Your task to perform on an android device: clear all cookies in the chrome app Image 0: 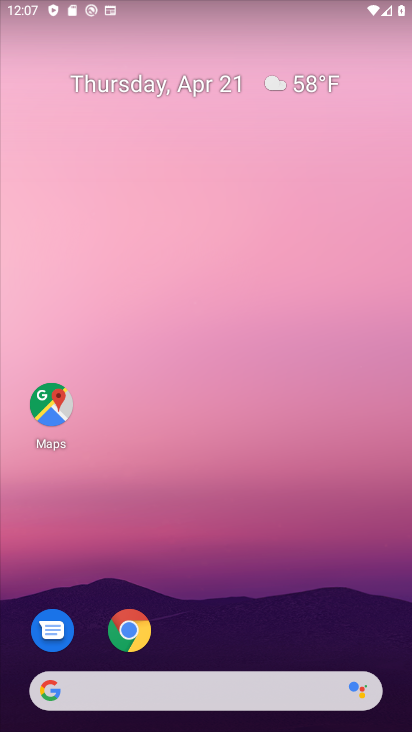
Step 0: drag from (158, 683) to (291, 169)
Your task to perform on an android device: clear all cookies in the chrome app Image 1: 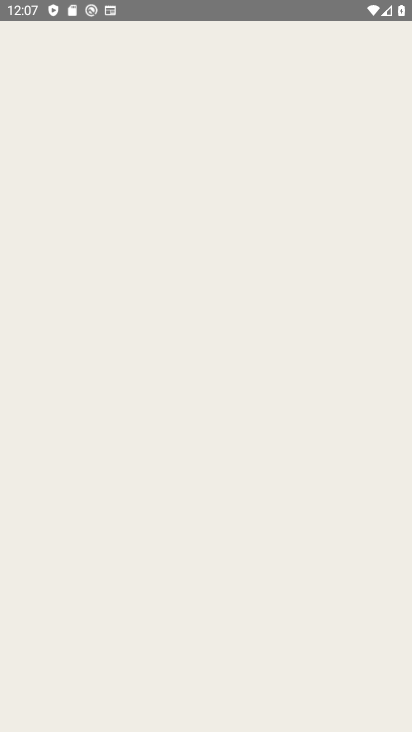
Step 1: press home button
Your task to perform on an android device: clear all cookies in the chrome app Image 2: 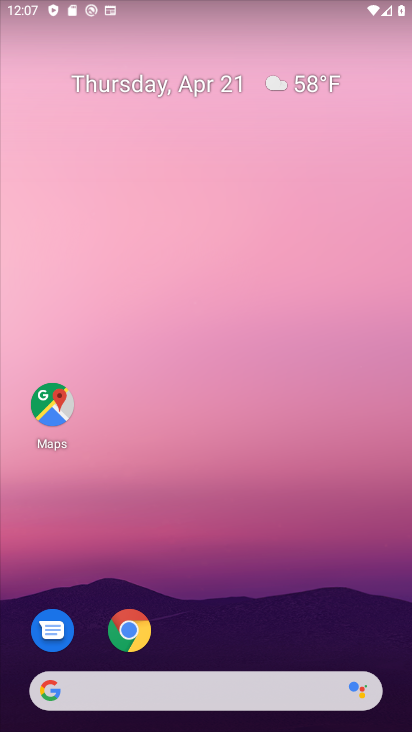
Step 2: drag from (170, 597) to (325, 90)
Your task to perform on an android device: clear all cookies in the chrome app Image 3: 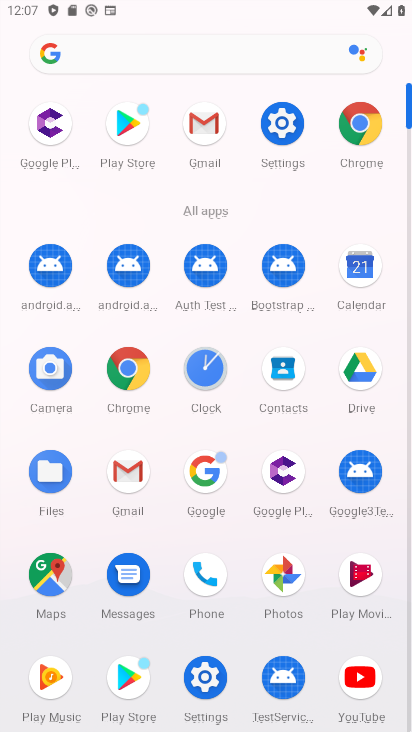
Step 3: click (367, 135)
Your task to perform on an android device: clear all cookies in the chrome app Image 4: 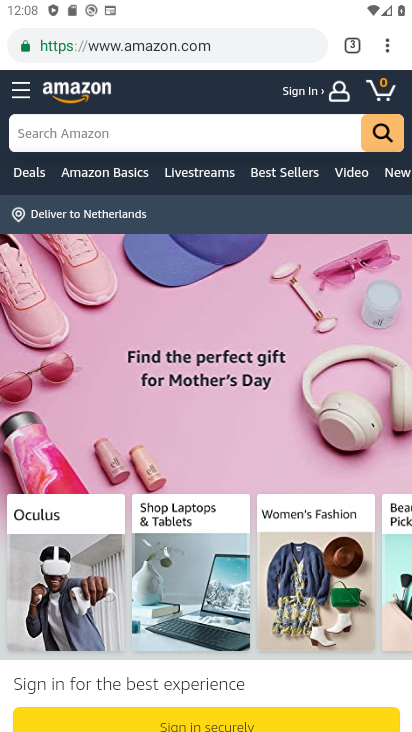
Step 4: click (383, 47)
Your task to perform on an android device: clear all cookies in the chrome app Image 5: 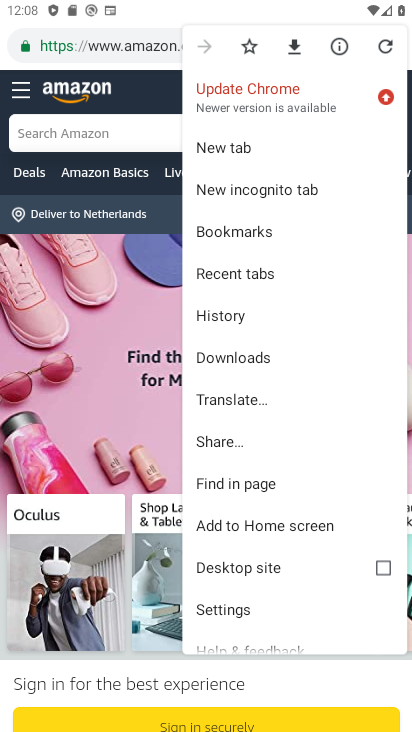
Step 5: click (230, 610)
Your task to perform on an android device: clear all cookies in the chrome app Image 6: 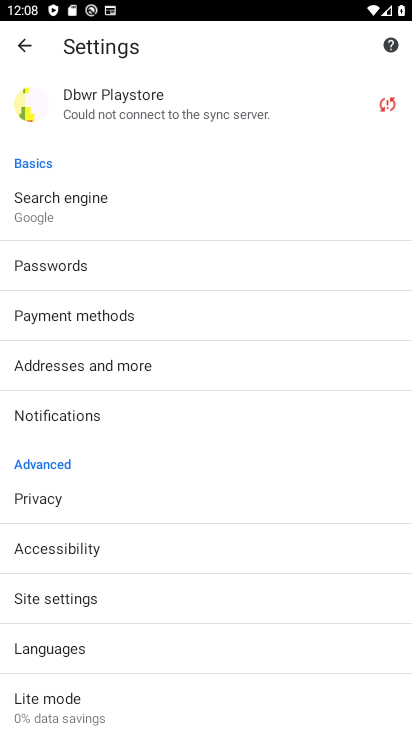
Step 6: click (44, 496)
Your task to perform on an android device: clear all cookies in the chrome app Image 7: 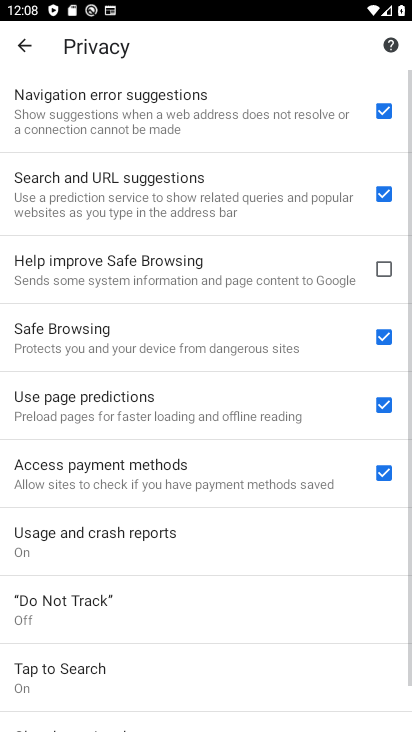
Step 7: drag from (153, 581) to (259, 198)
Your task to perform on an android device: clear all cookies in the chrome app Image 8: 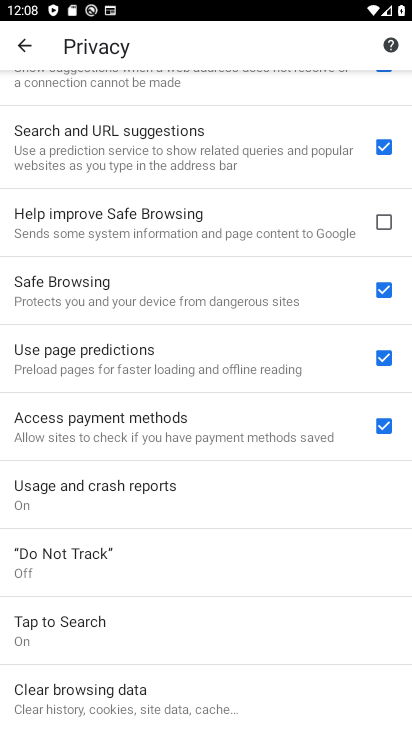
Step 8: click (129, 702)
Your task to perform on an android device: clear all cookies in the chrome app Image 9: 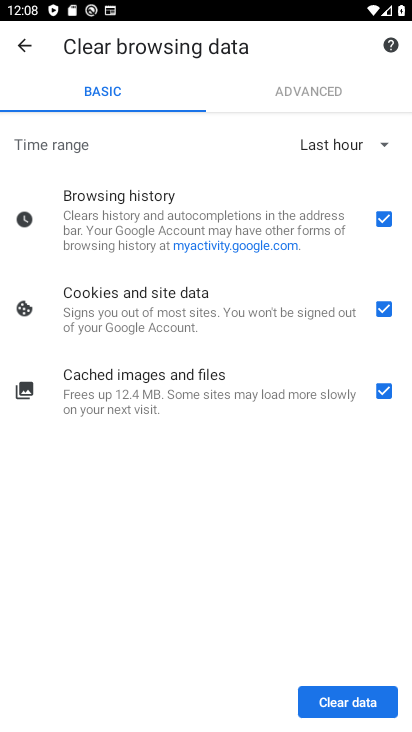
Step 9: click (383, 216)
Your task to perform on an android device: clear all cookies in the chrome app Image 10: 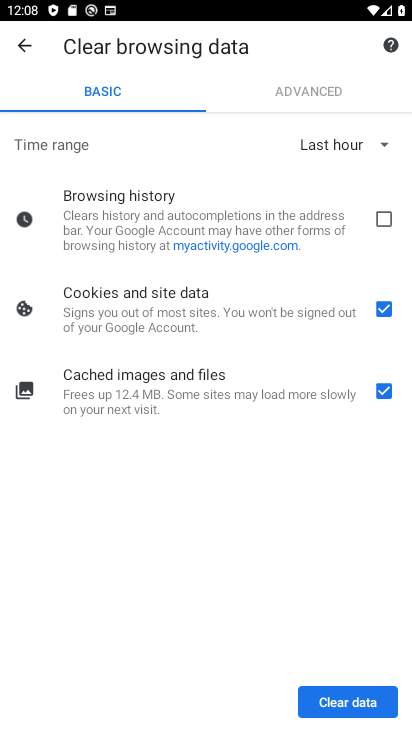
Step 10: click (381, 393)
Your task to perform on an android device: clear all cookies in the chrome app Image 11: 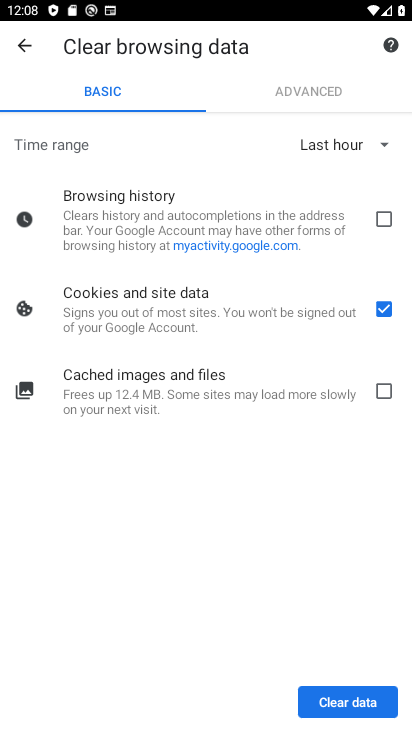
Step 11: click (346, 696)
Your task to perform on an android device: clear all cookies in the chrome app Image 12: 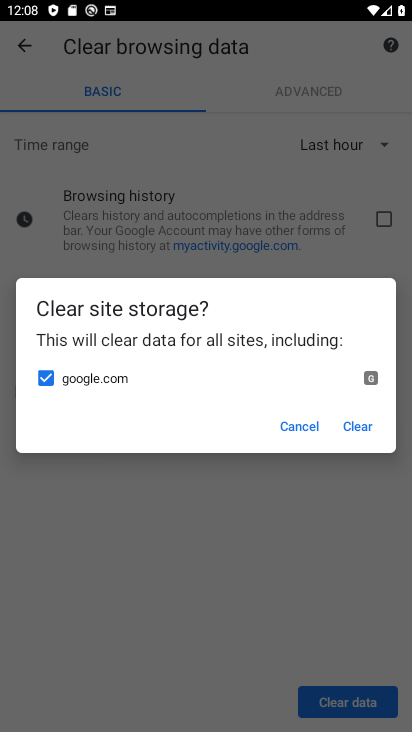
Step 12: click (362, 427)
Your task to perform on an android device: clear all cookies in the chrome app Image 13: 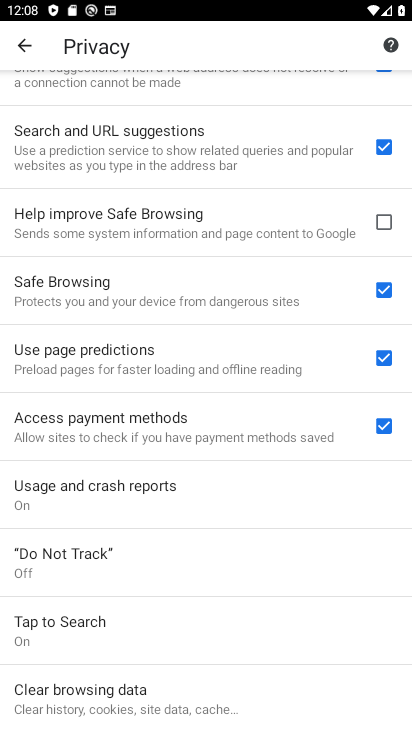
Step 13: task complete